Your task to perform on an android device: turn on wifi Image 0: 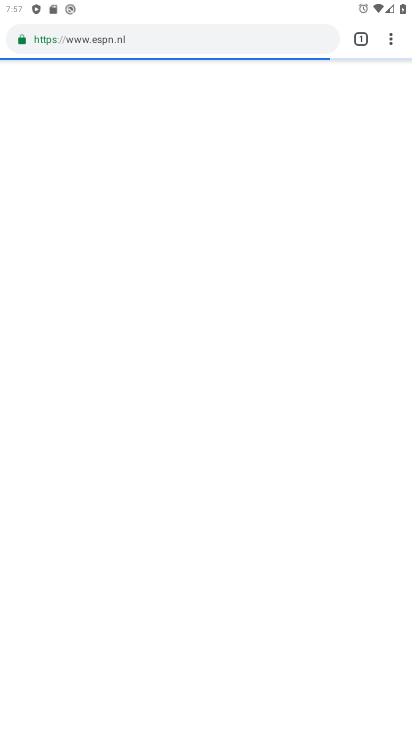
Step 0: press home button
Your task to perform on an android device: turn on wifi Image 1: 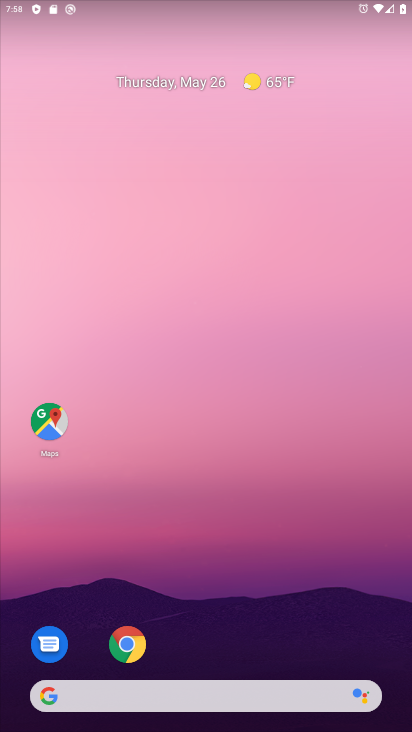
Step 1: drag from (191, 658) to (273, 99)
Your task to perform on an android device: turn on wifi Image 2: 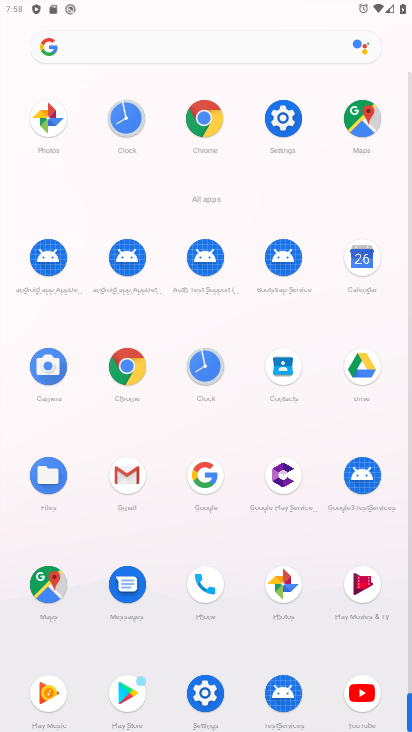
Step 2: click (285, 128)
Your task to perform on an android device: turn on wifi Image 3: 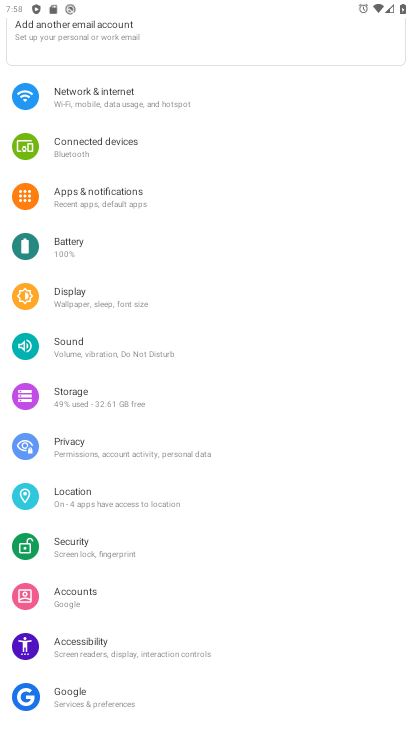
Step 3: click (162, 90)
Your task to perform on an android device: turn on wifi Image 4: 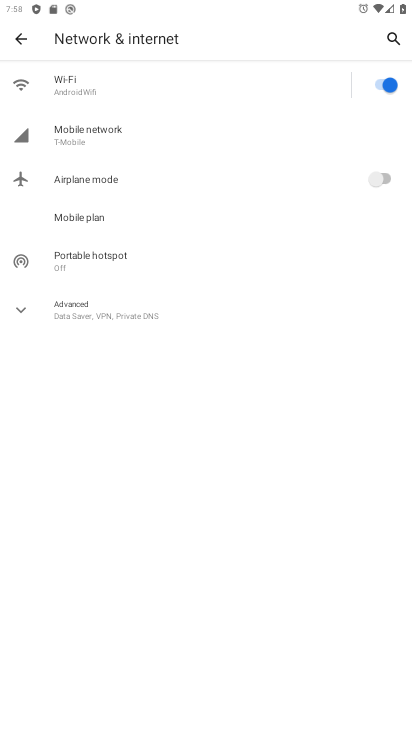
Step 4: click (117, 81)
Your task to perform on an android device: turn on wifi Image 5: 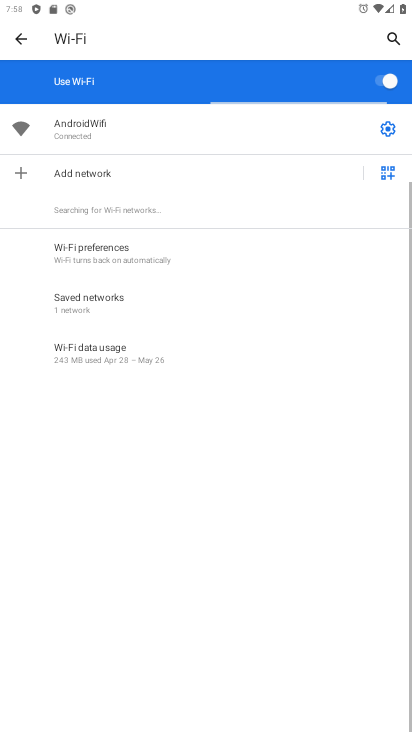
Step 5: task complete